Your task to perform on an android device: Open Google Chrome and click the shortcut for Amazon.com Image 0: 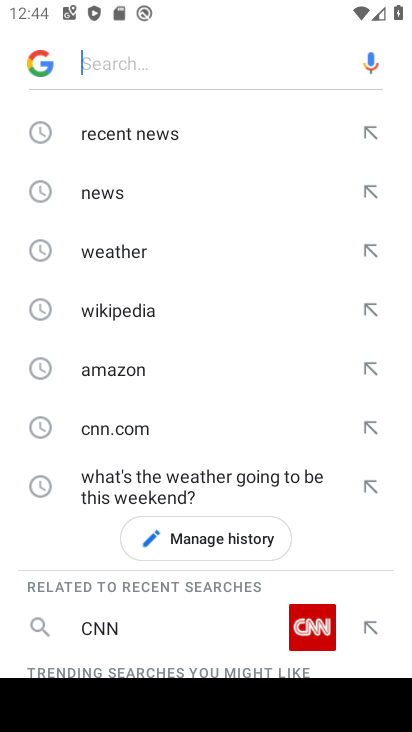
Step 0: press home button
Your task to perform on an android device: Open Google Chrome and click the shortcut for Amazon.com Image 1: 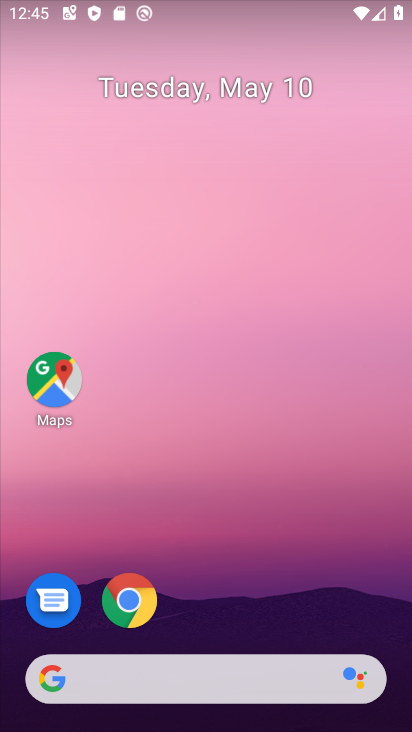
Step 1: click (120, 611)
Your task to perform on an android device: Open Google Chrome and click the shortcut for Amazon.com Image 2: 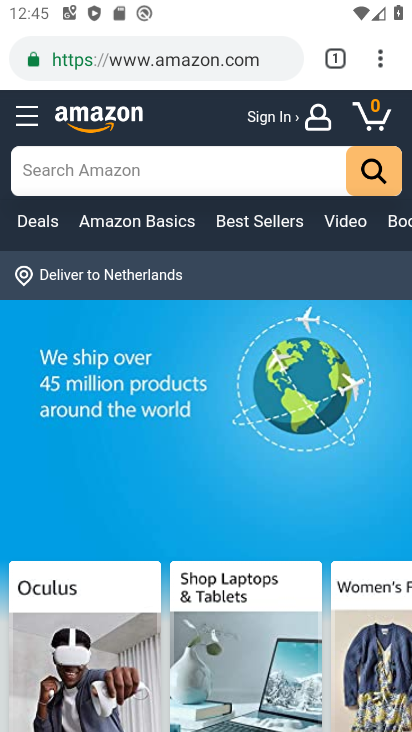
Step 2: task complete